Your task to perform on an android device: snooze an email in the gmail app Image 0: 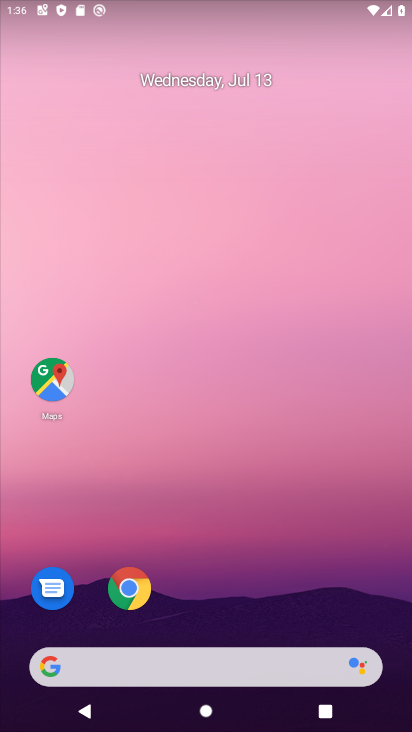
Step 0: drag from (183, 648) to (124, 178)
Your task to perform on an android device: snooze an email in the gmail app Image 1: 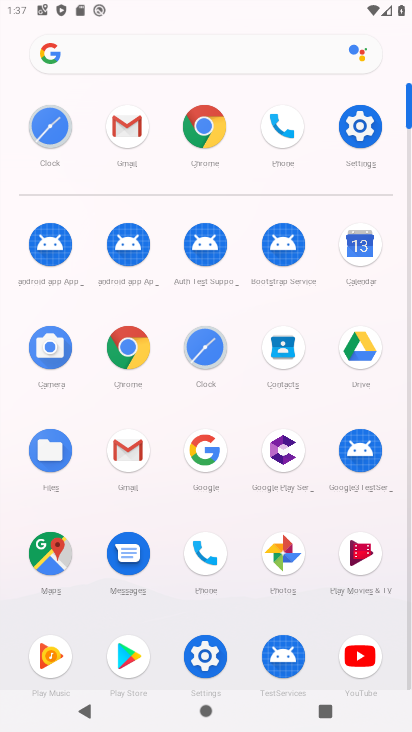
Step 1: click (127, 137)
Your task to perform on an android device: snooze an email in the gmail app Image 2: 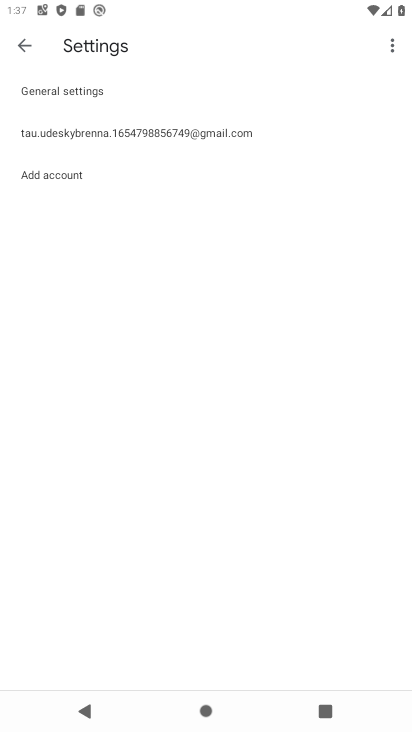
Step 2: click (25, 46)
Your task to perform on an android device: snooze an email in the gmail app Image 3: 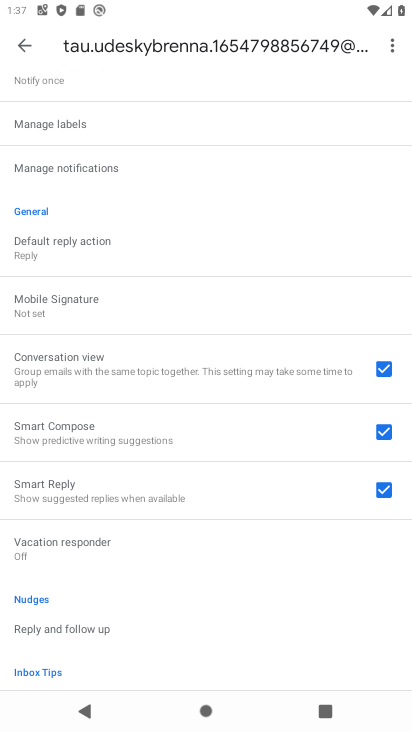
Step 3: click (18, 49)
Your task to perform on an android device: snooze an email in the gmail app Image 4: 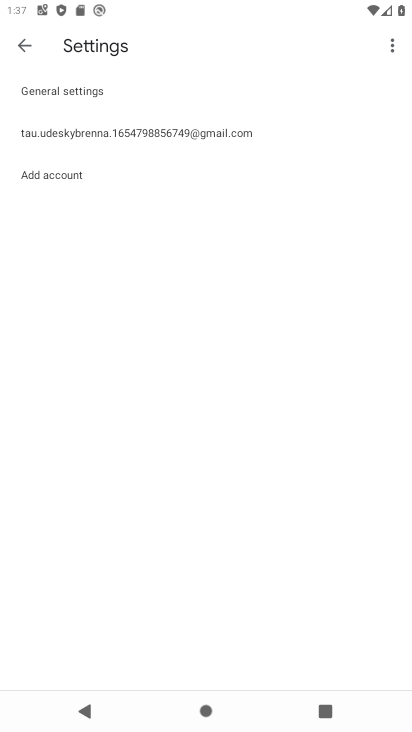
Step 4: click (18, 49)
Your task to perform on an android device: snooze an email in the gmail app Image 5: 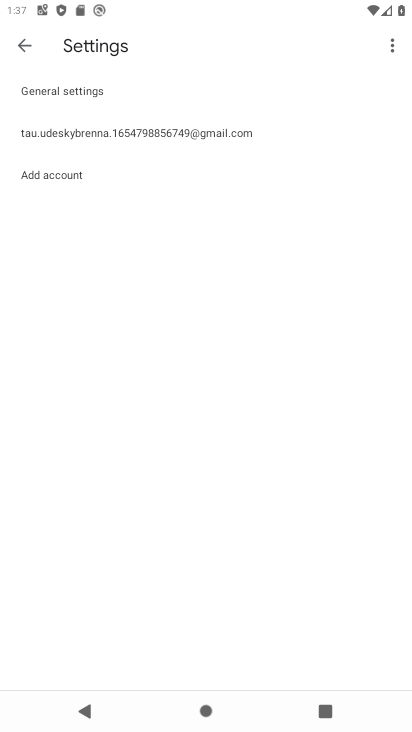
Step 5: click (22, 40)
Your task to perform on an android device: snooze an email in the gmail app Image 6: 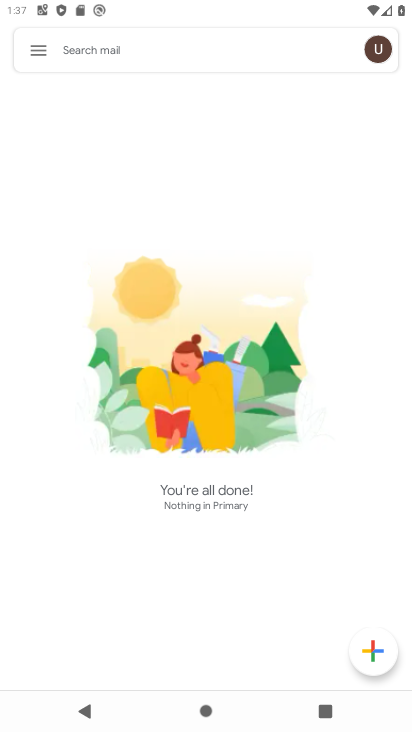
Step 6: task complete